Your task to perform on an android device: add a label to a message in the gmail app Image 0: 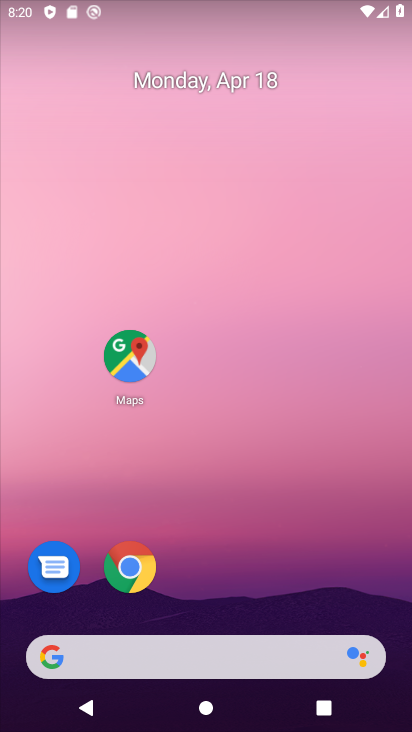
Step 0: drag from (220, 685) to (200, 218)
Your task to perform on an android device: add a label to a message in the gmail app Image 1: 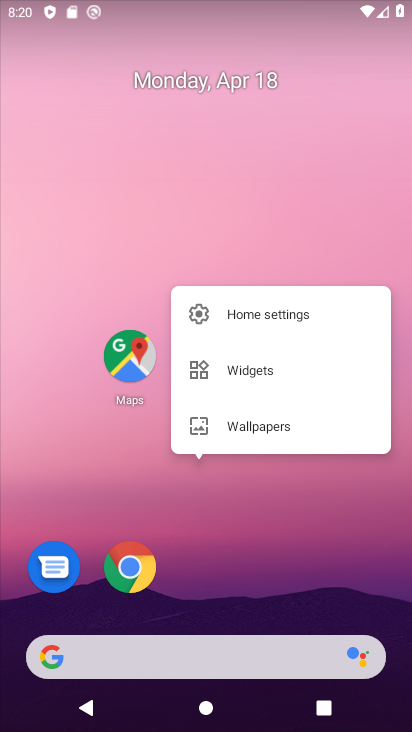
Step 1: click (200, 218)
Your task to perform on an android device: add a label to a message in the gmail app Image 2: 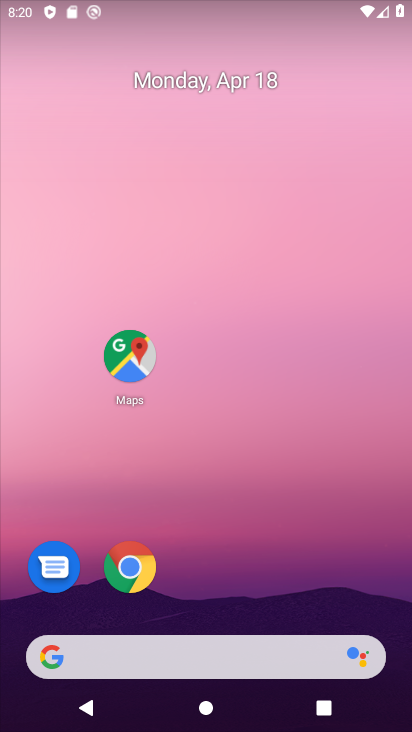
Step 2: drag from (252, 693) to (252, 138)
Your task to perform on an android device: add a label to a message in the gmail app Image 3: 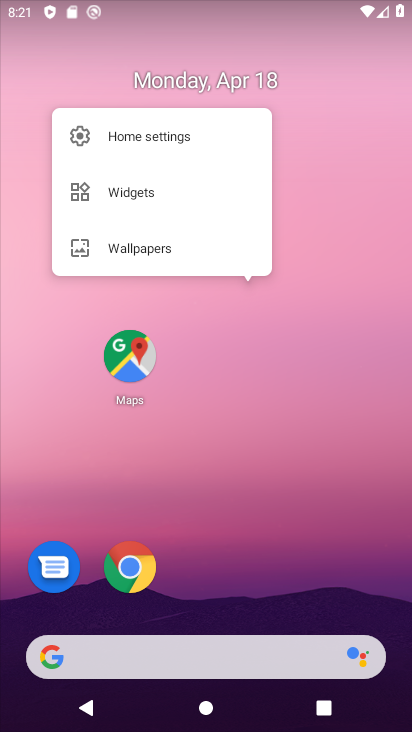
Step 3: click (288, 511)
Your task to perform on an android device: add a label to a message in the gmail app Image 4: 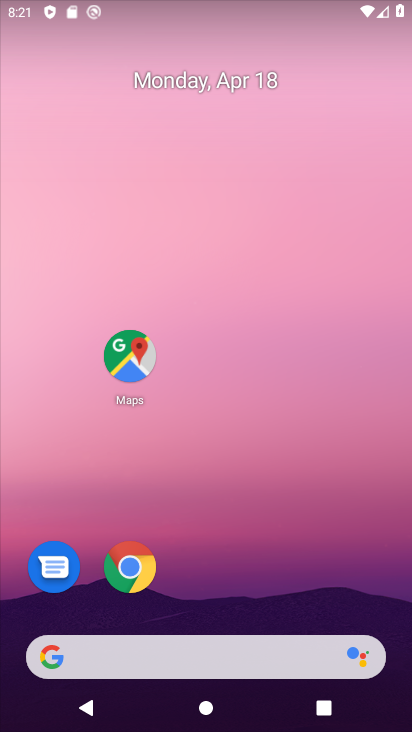
Step 4: drag from (228, 680) to (309, 198)
Your task to perform on an android device: add a label to a message in the gmail app Image 5: 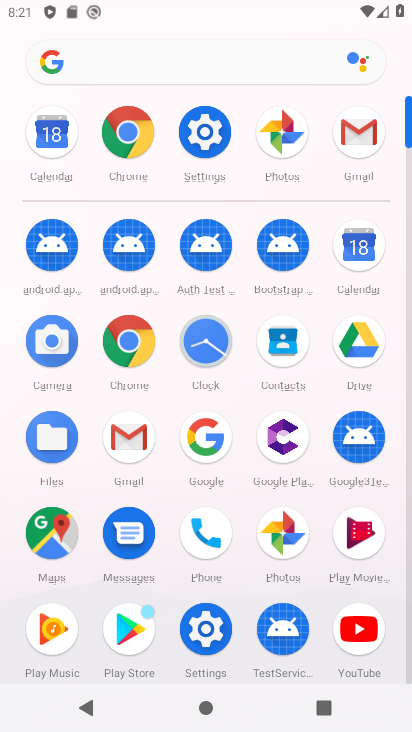
Step 5: click (374, 128)
Your task to perform on an android device: add a label to a message in the gmail app Image 6: 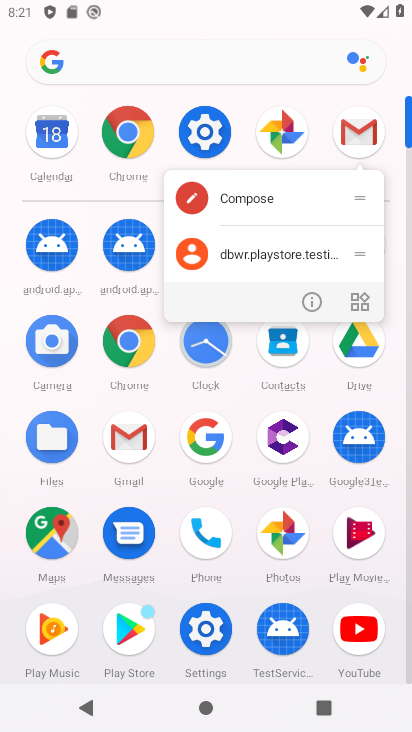
Step 6: click (355, 152)
Your task to perform on an android device: add a label to a message in the gmail app Image 7: 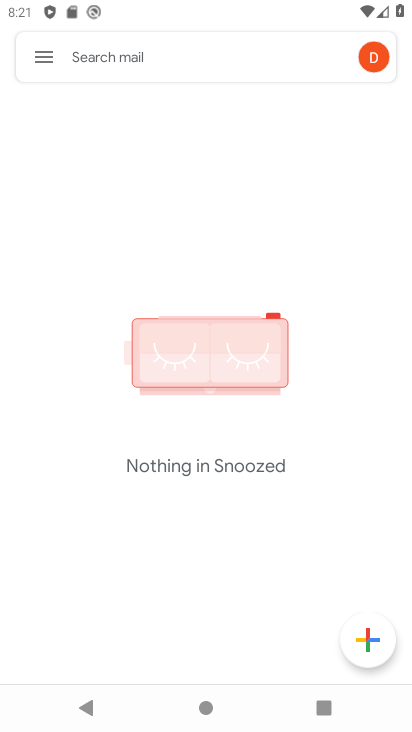
Step 7: click (50, 58)
Your task to perform on an android device: add a label to a message in the gmail app Image 8: 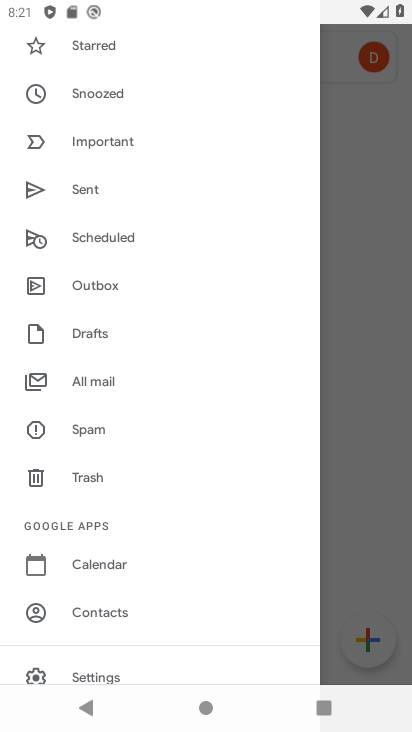
Step 8: click (80, 671)
Your task to perform on an android device: add a label to a message in the gmail app Image 9: 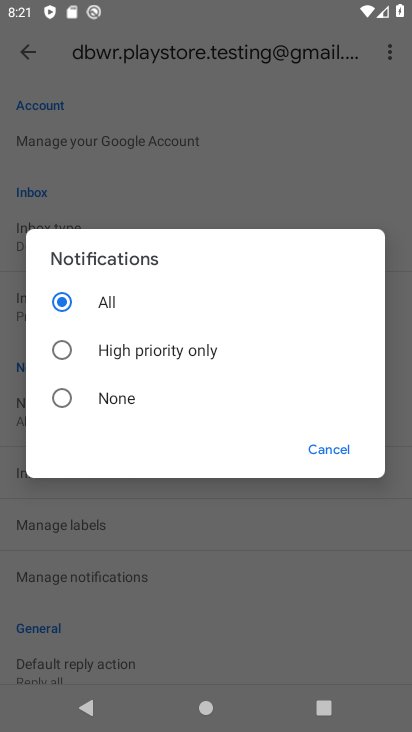
Step 9: click (311, 456)
Your task to perform on an android device: add a label to a message in the gmail app Image 10: 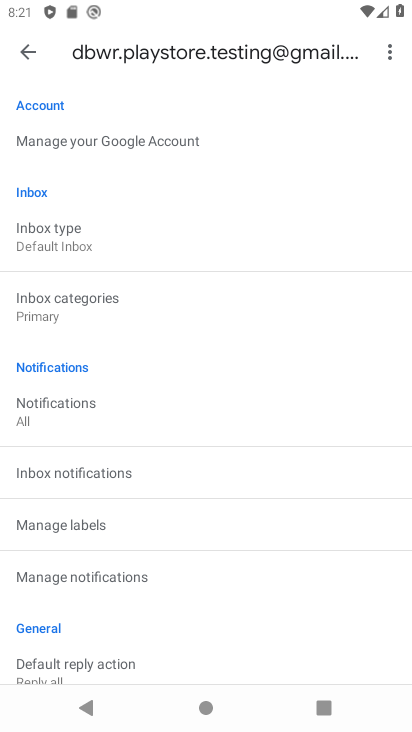
Step 10: click (82, 530)
Your task to perform on an android device: add a label to a message in the gmail app Image 11: 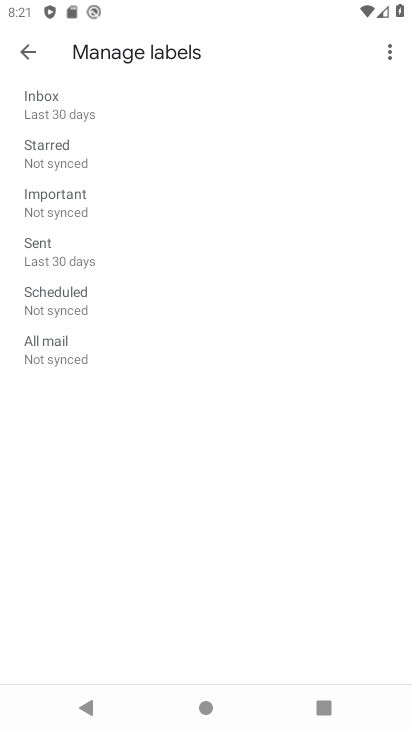
Step 11: click (33, 290)
Your task to perform on an android device: add a label to a message in the gmail app Image 12: 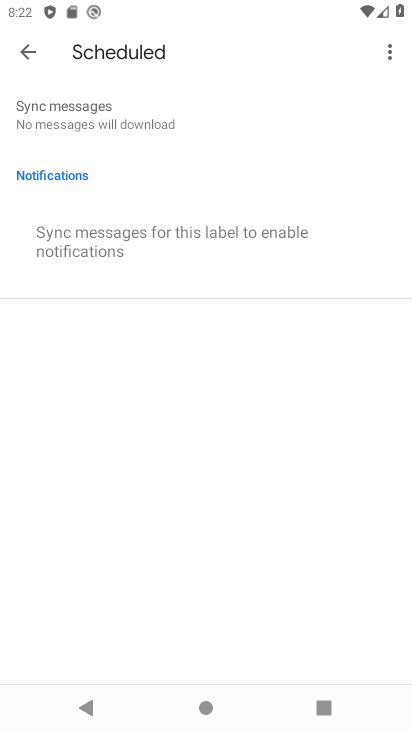
Step 12: task complete